Your task to perform on an android device: Add "alienware area 51" to the cart on bestbuy Image 0: 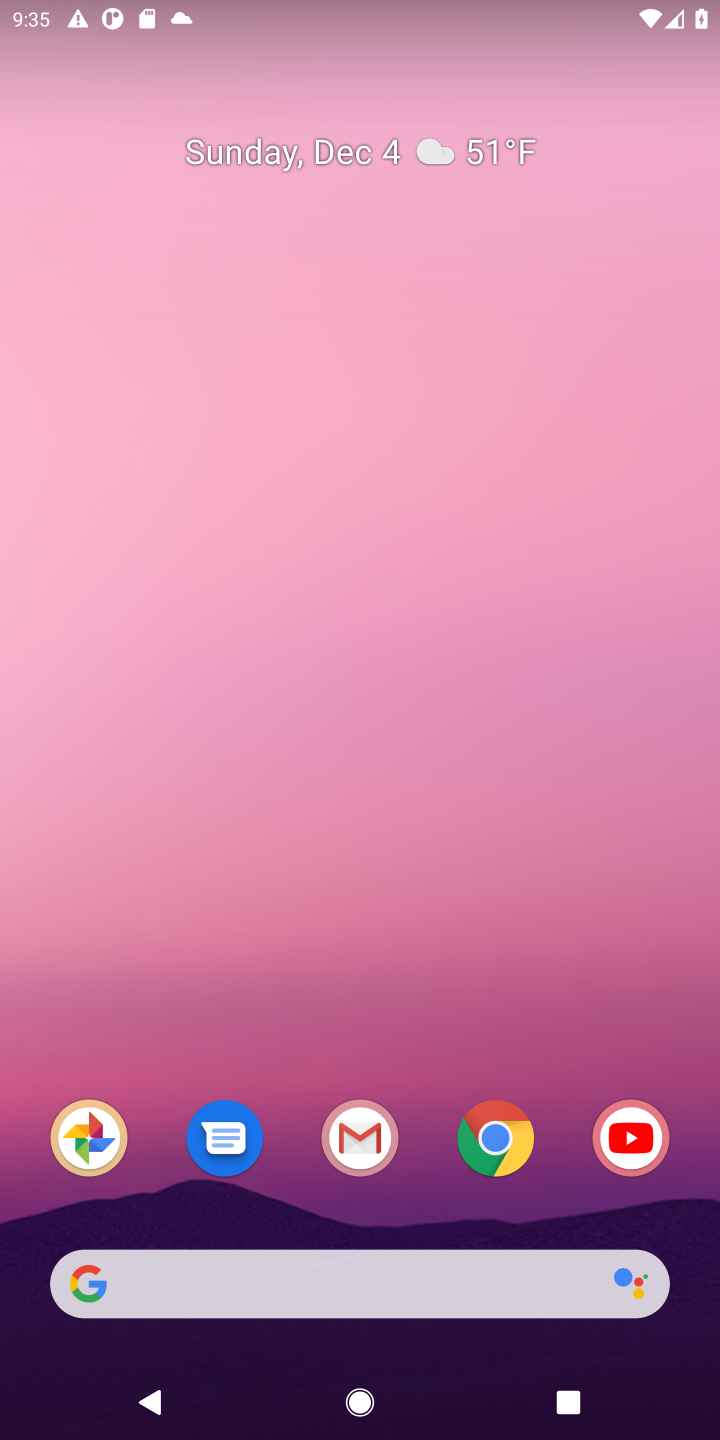
Step 0: click (505, 1131)
Your task to perform on an android device: Add "alienware area 51" to the cart on bestbuy Image 1: 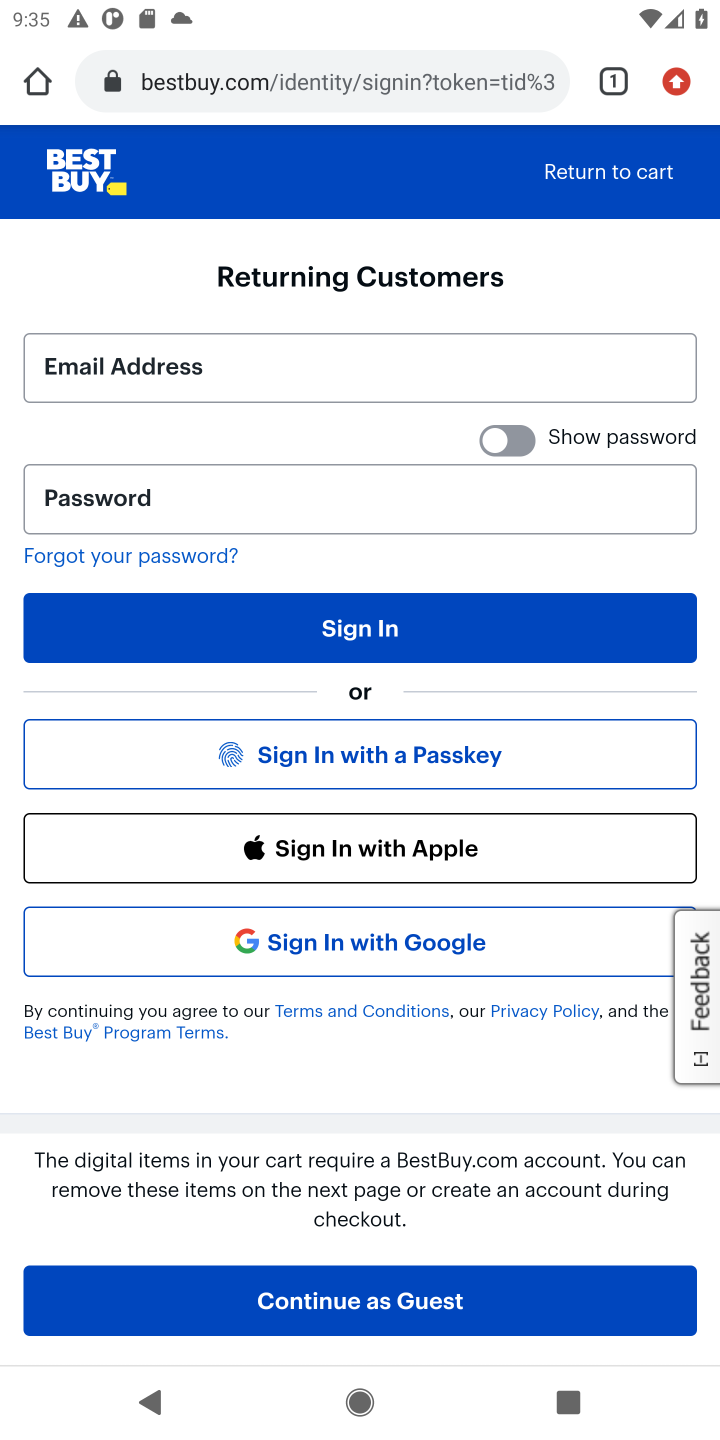
Step 1: press back button
Your task to perform on an android device: Add "alienware area 51" to the cart on bestbuy Image 2: 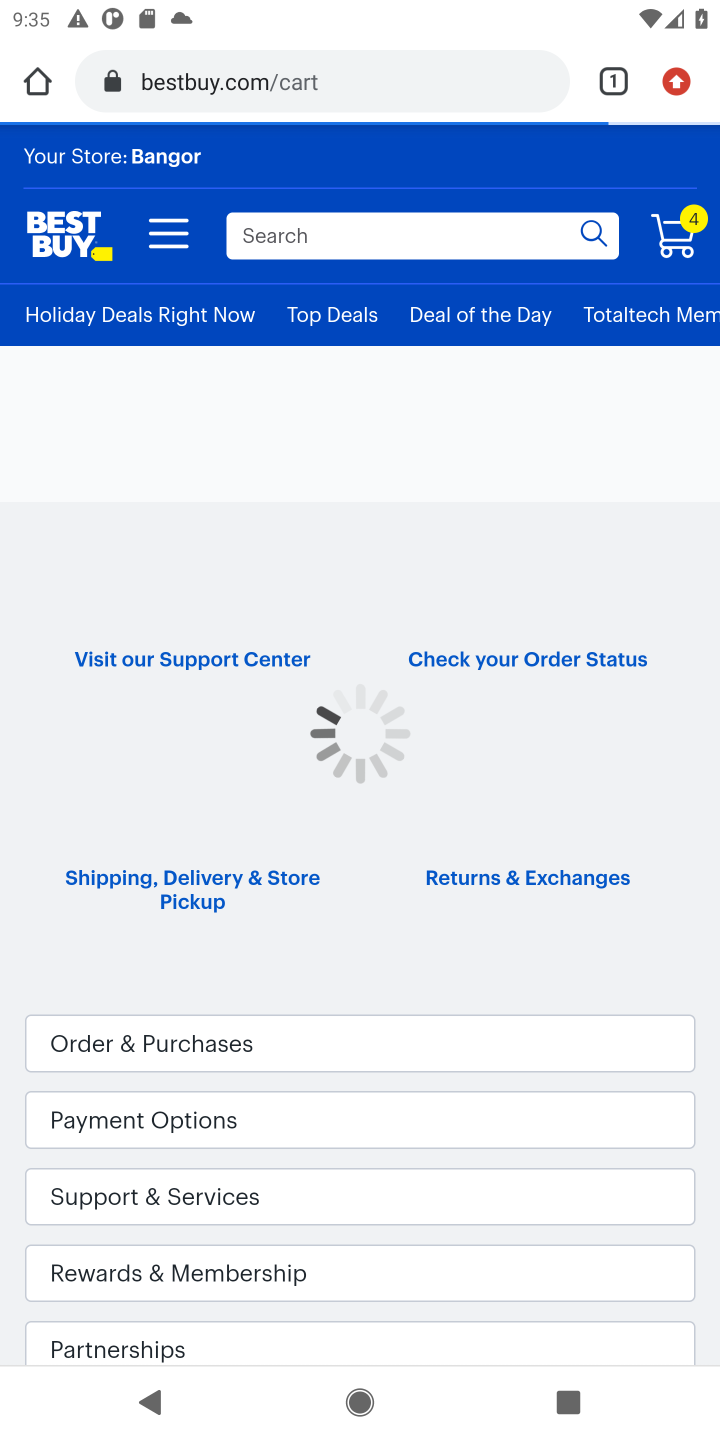
Step 2: click (402, 235)
Your task to perform on an android device: Add "alienware area 51" to the cart on bestbuy Image 3: 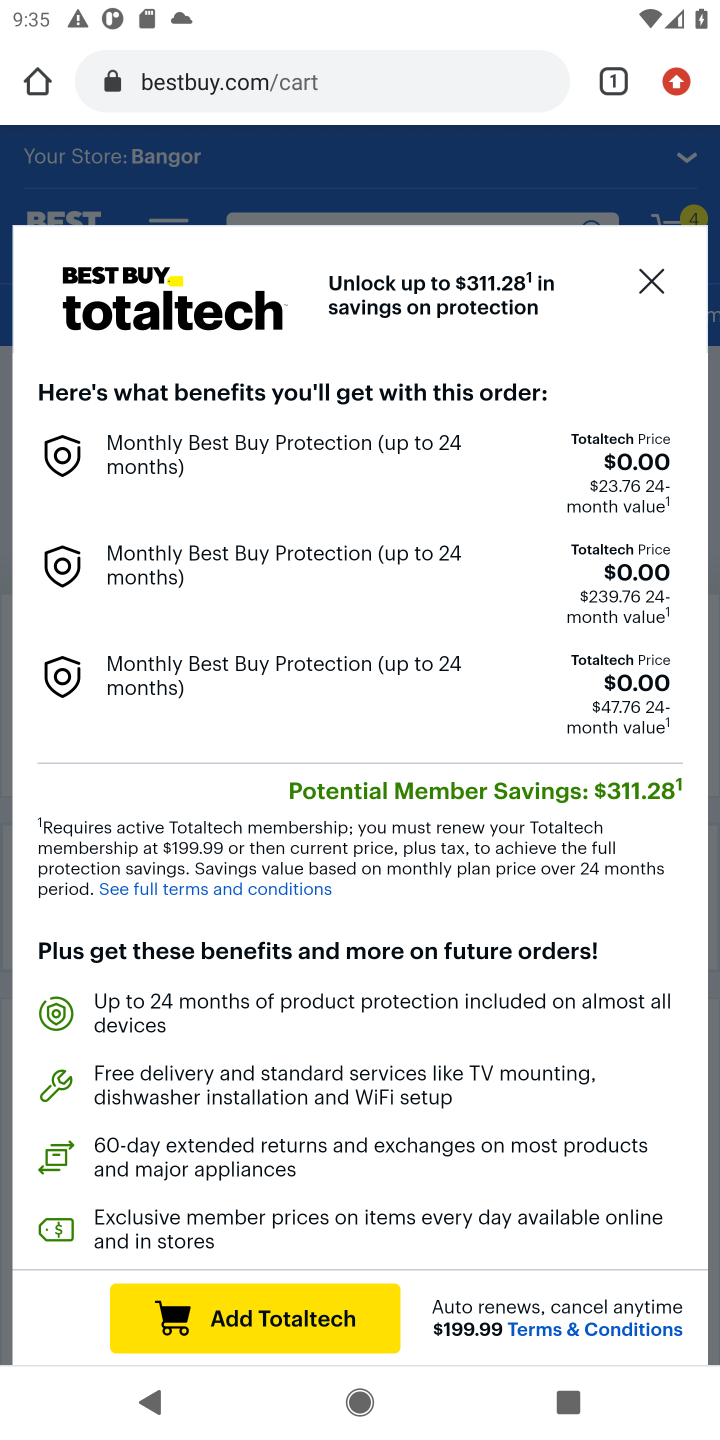
Step 3: type "alienware area 51"
Your task to perform on an android device: Add "alienware area 51" to the cart on bestbuy Image 4: 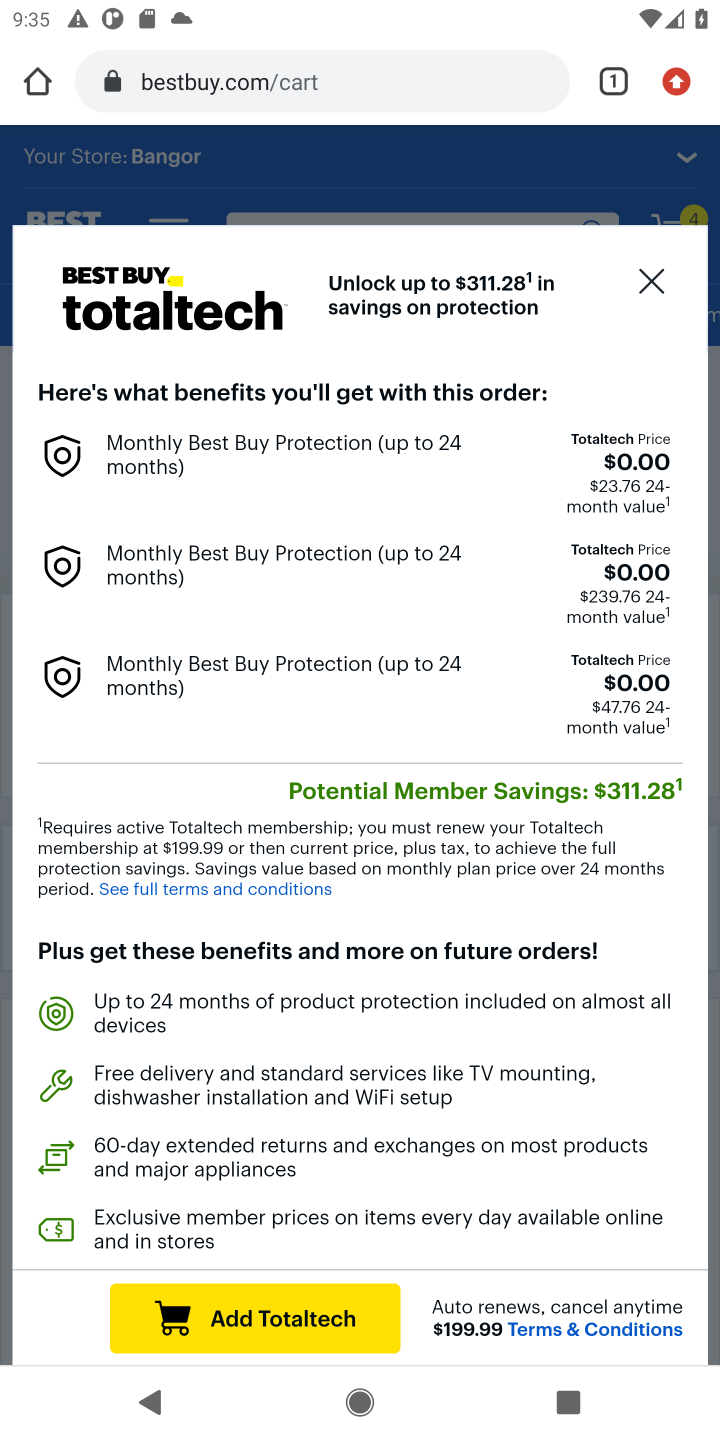
Step 4: click (644, 280)
Your task to perform on an android device: Add "alienware area 51" to the cart on bestbuy Image 5: 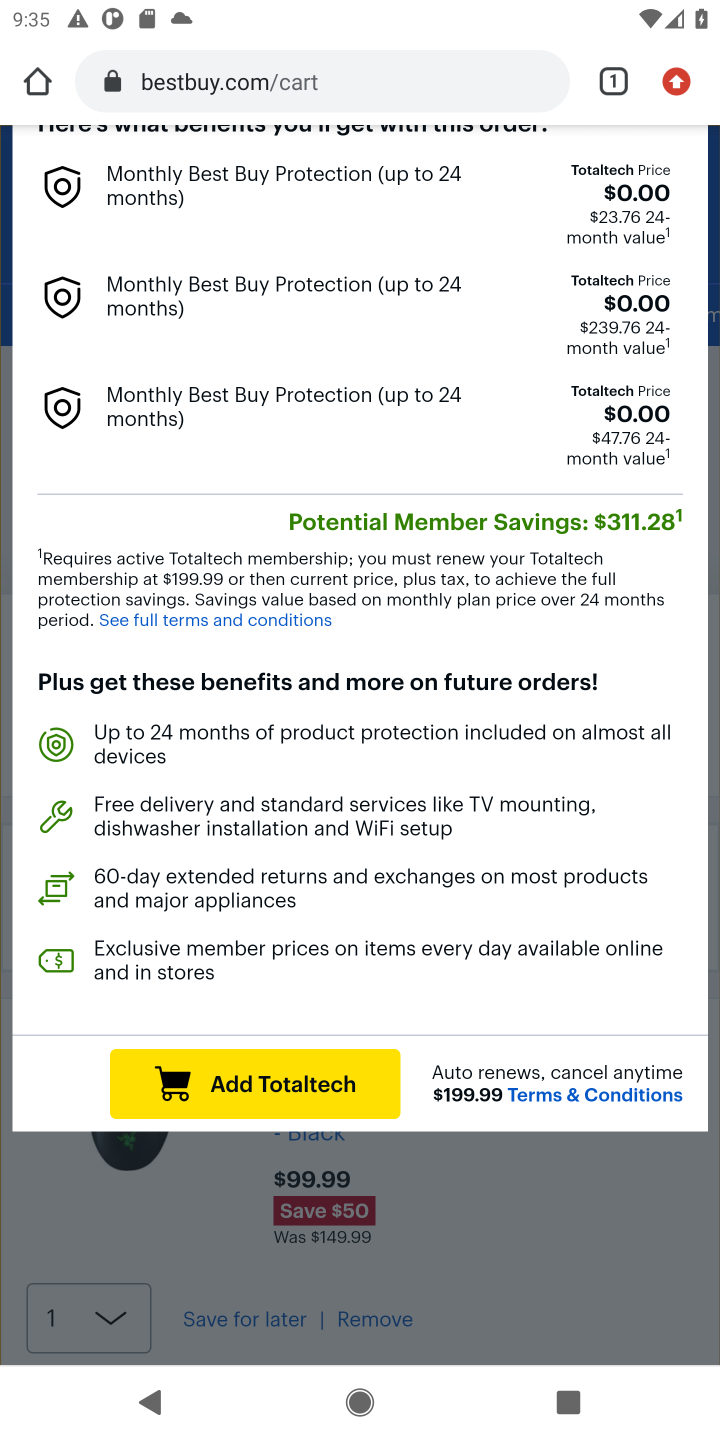
Step 5: drag from (499, 306) to (530, 1182)
Your task to perform on an android device: Add "alienware area 51" to the cart on bestbuy Image 6: 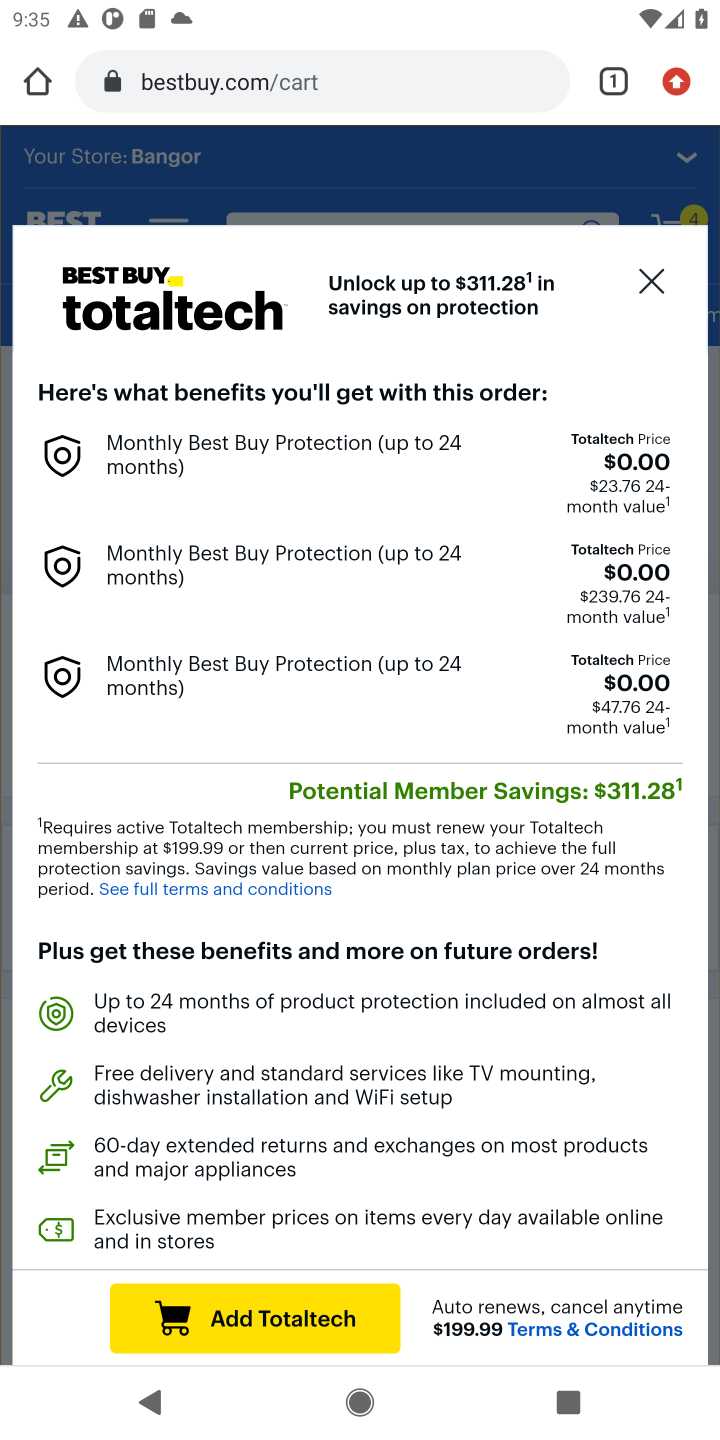
Step 6: click (650, 275)
Your task to perform on an android device: Add "alienware area 51" to the cart on bestbuy Image 7: 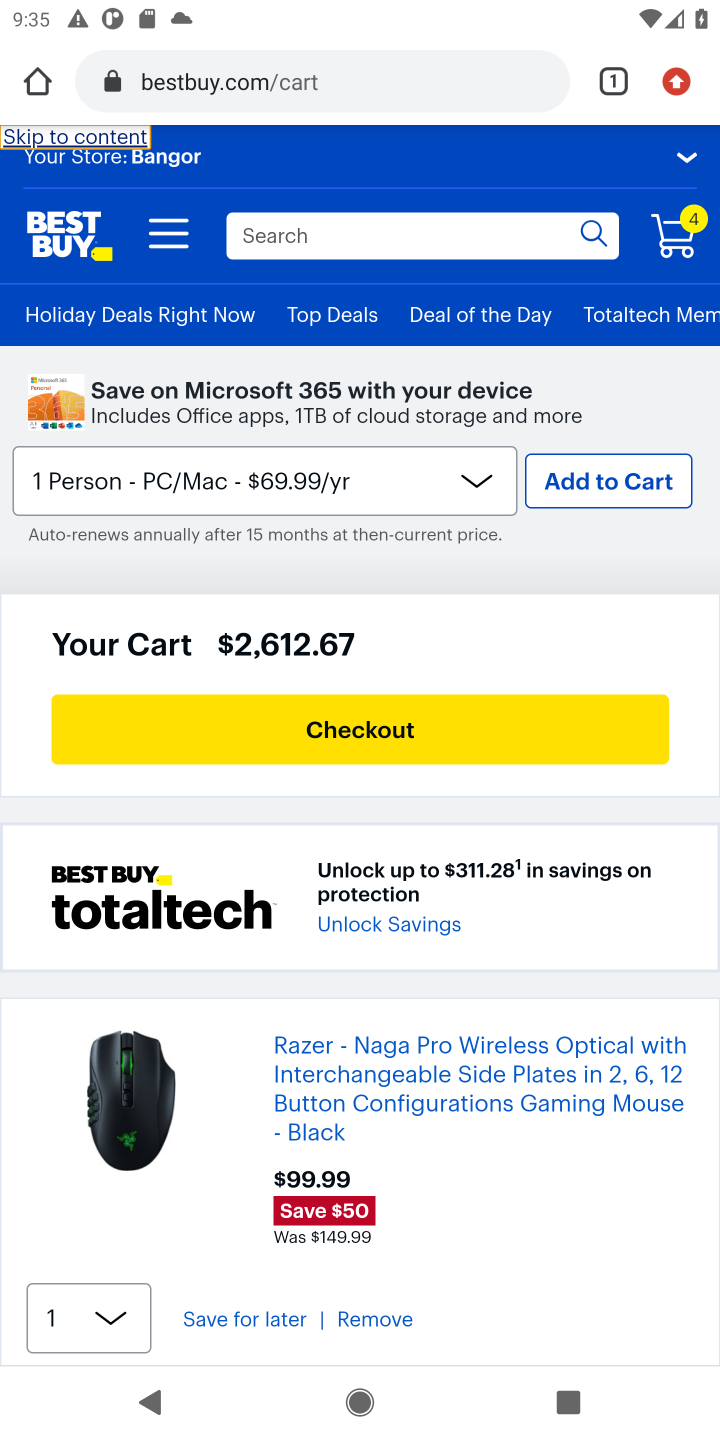
Step 7: click (521, 231)
Your task to perform on an android device: Add "alienware area 51" to the cart on bestbuy Image 8: 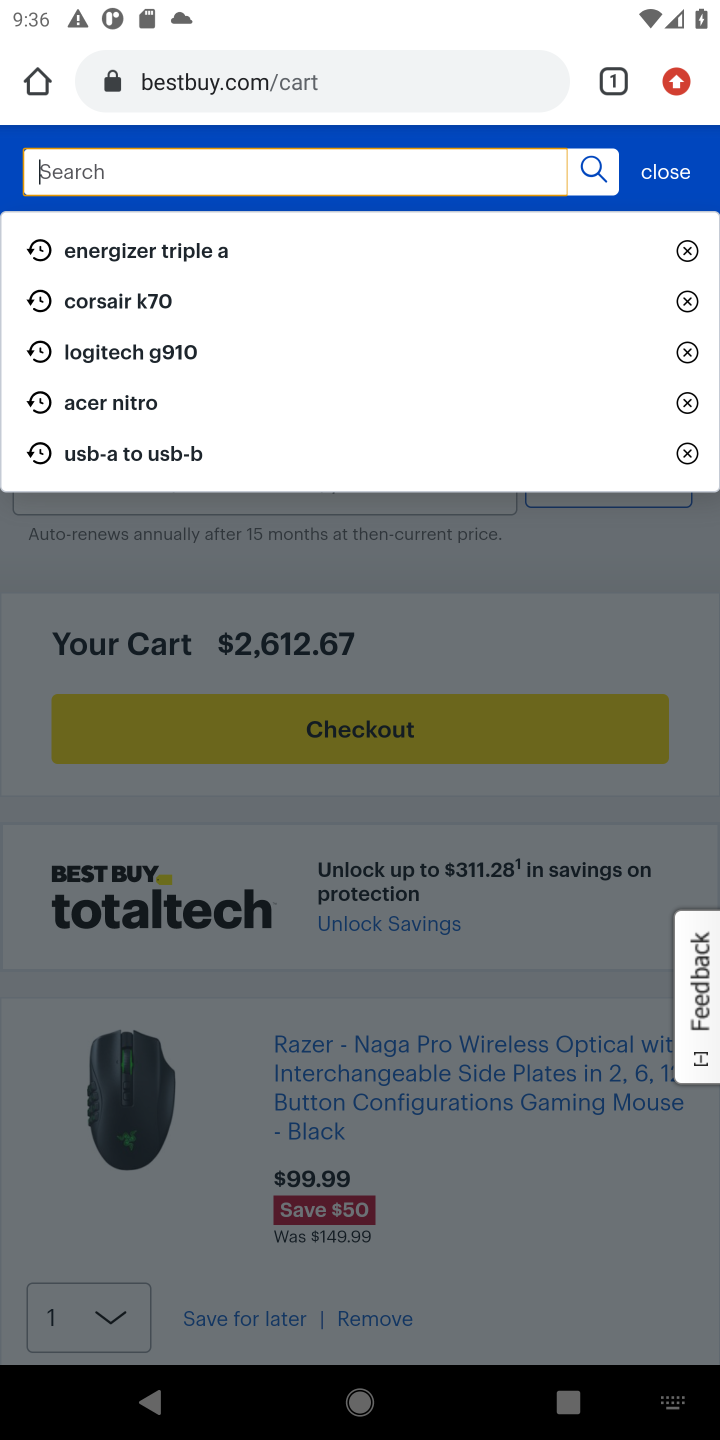
Step 8: type "alienware area 51"
Your task to perform on an android device: Add "alienware area 51" to the cart on bestbuy Image 9: 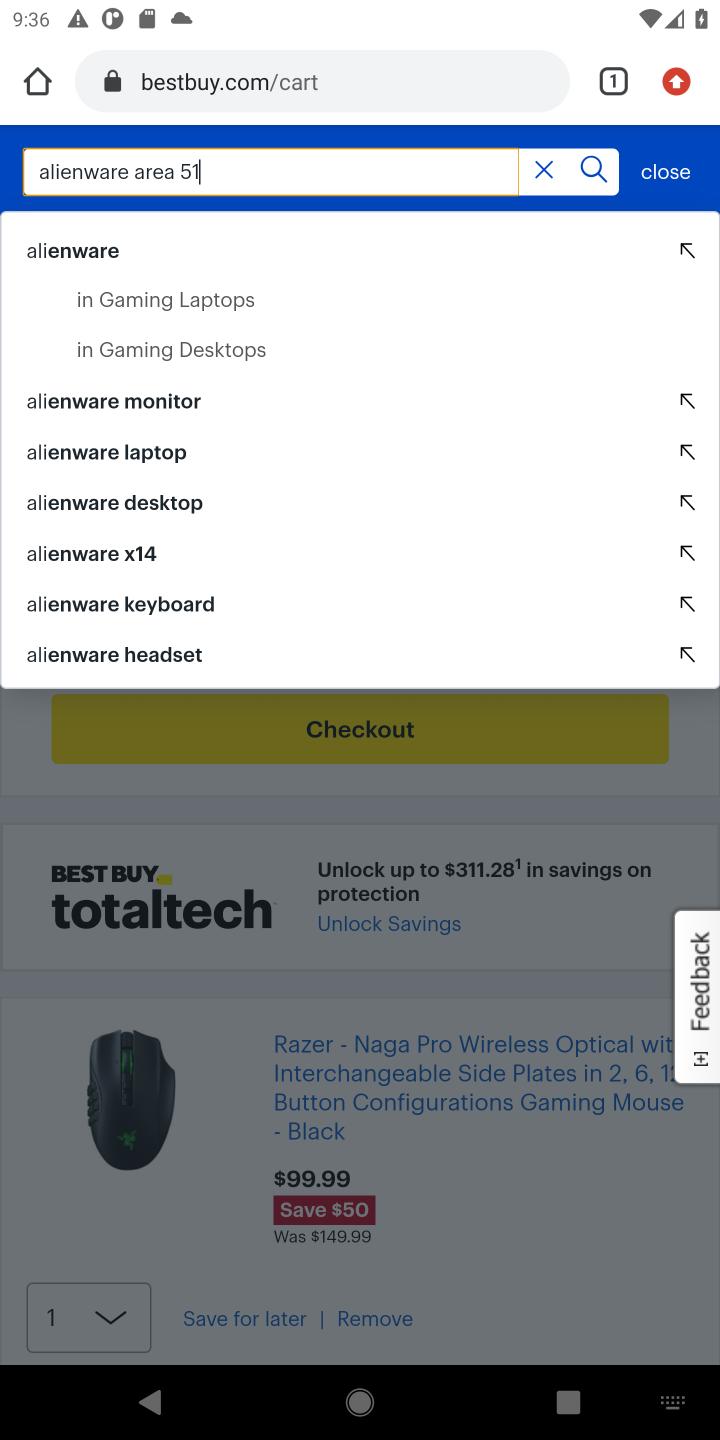
Step 9: press enter
Your task to perform on an android device: Add "alienware area 51" to the cart on bestbuy Image 10: 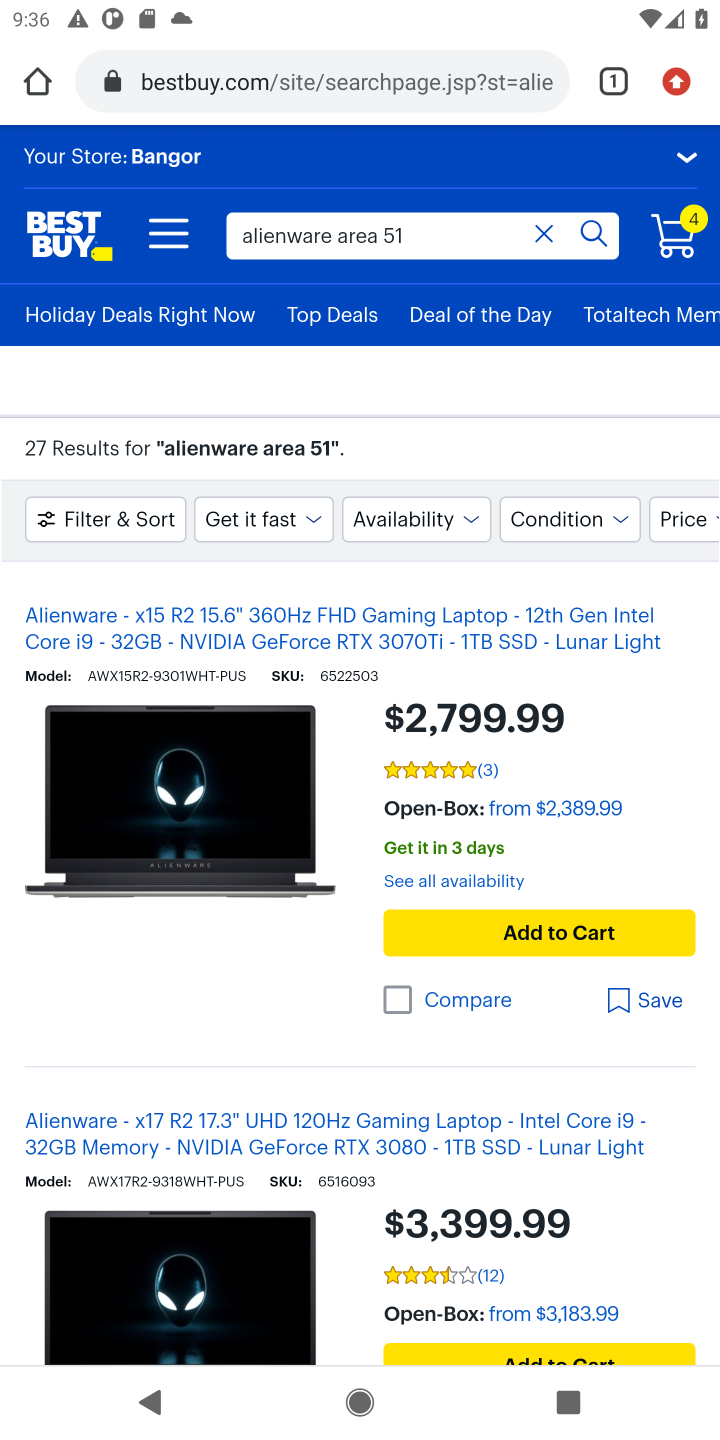
Step 10: drag from (404, 998) to (495, 388)
Your task to perform on an android device: Add "alienware area 51" to the cart on bestbuy Image 11: 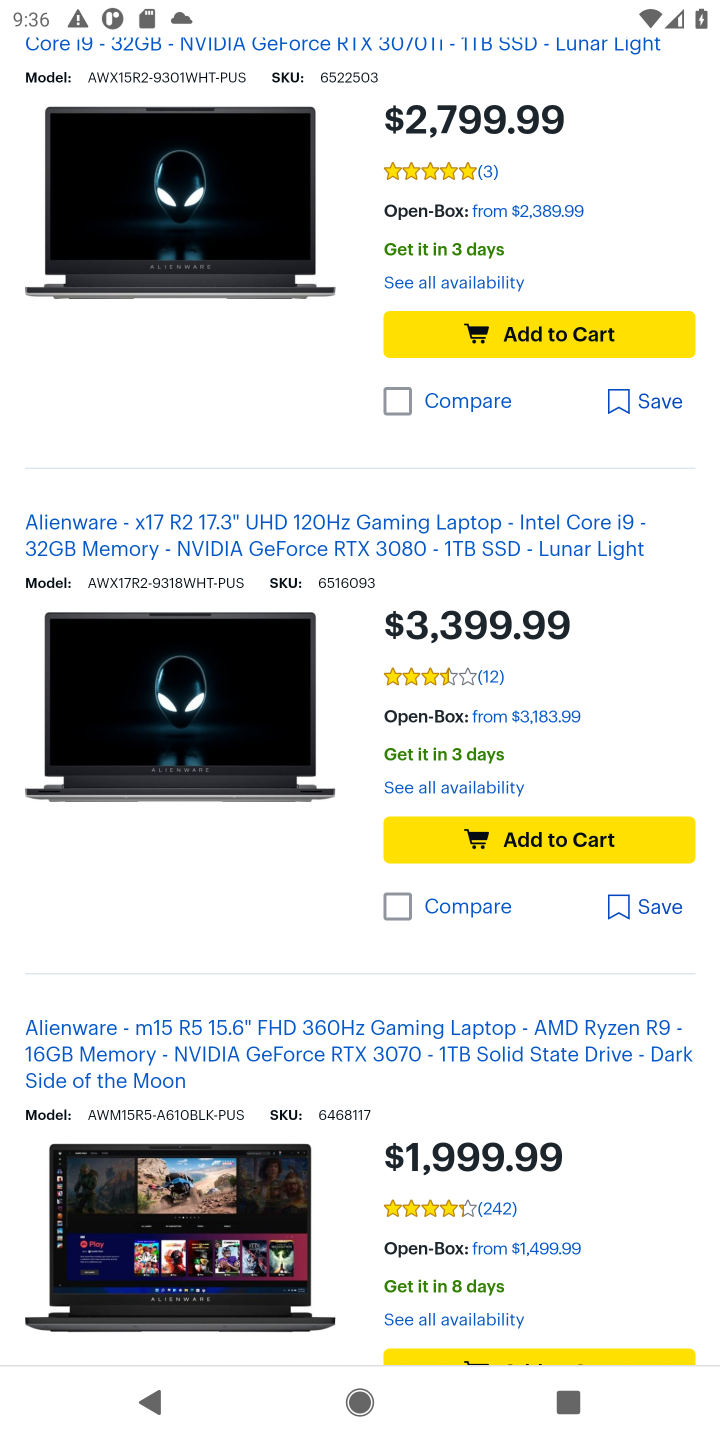
Step 11: drag from (562, 1087) to (607, 210)
Your task to perform on an android device: Add "alienware area 51" to the cart on bestbuy Image 12: 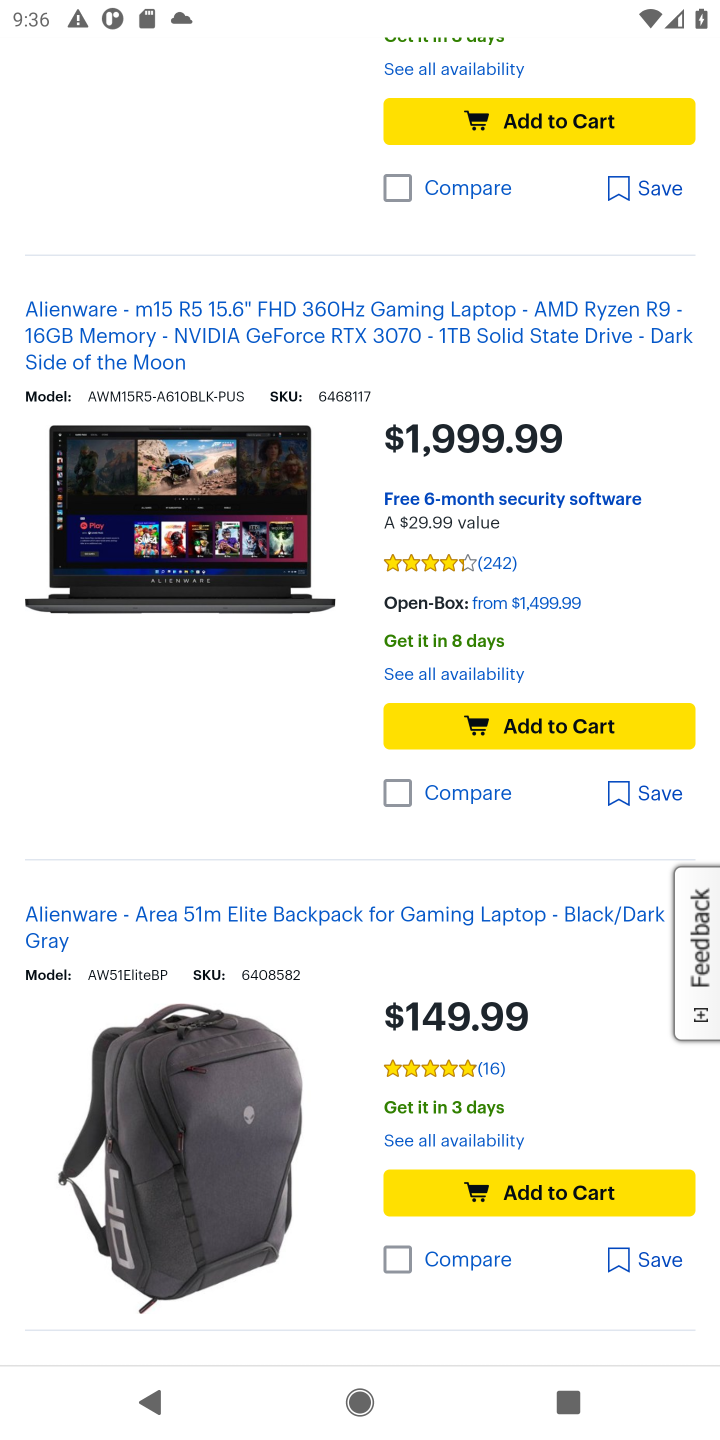
Step 12: click (212, 1042)
Your task to perform on an android device: Add "alienware area 51" to the cart on bestbuy Image 13: 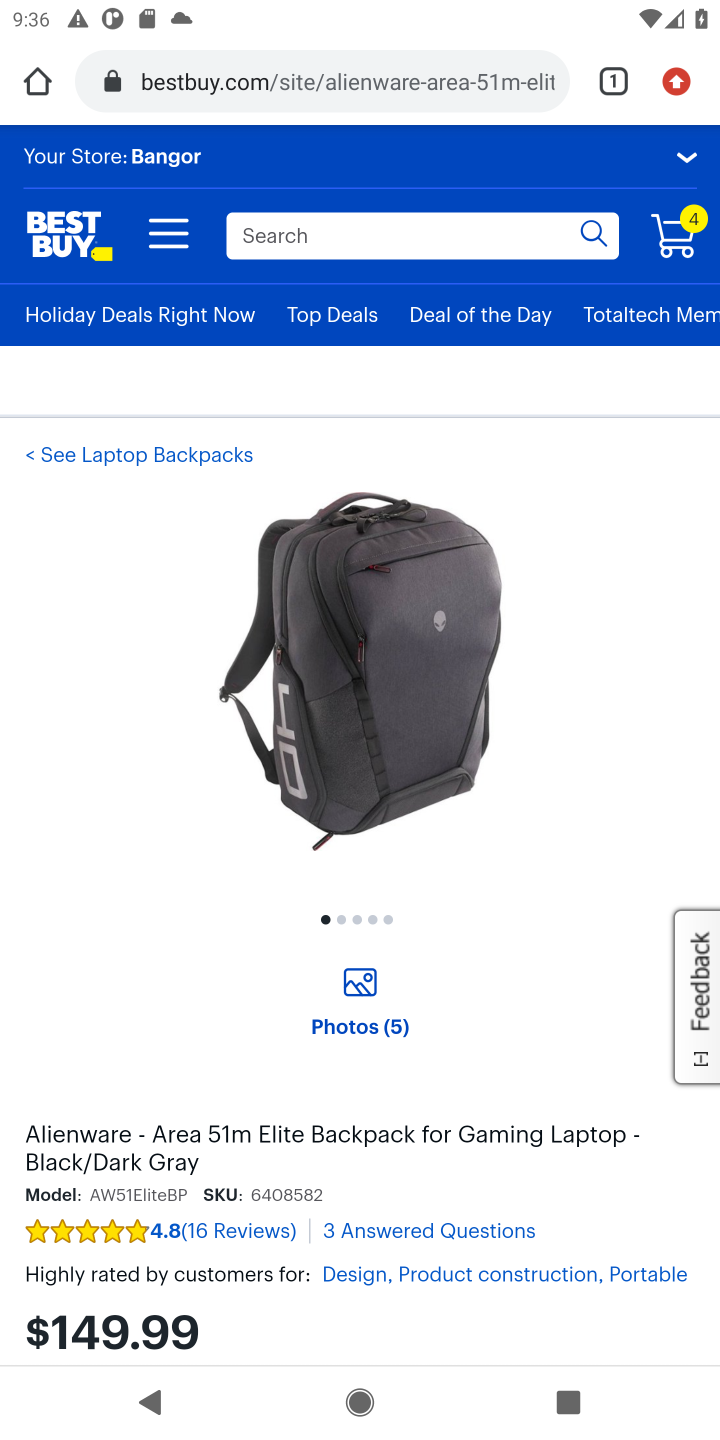
Step 13: drag from (556, 1068) to (467, 392)
Your task to perform on an android device: Add "alienware area 51" to the cart on bestbuy Image 14: 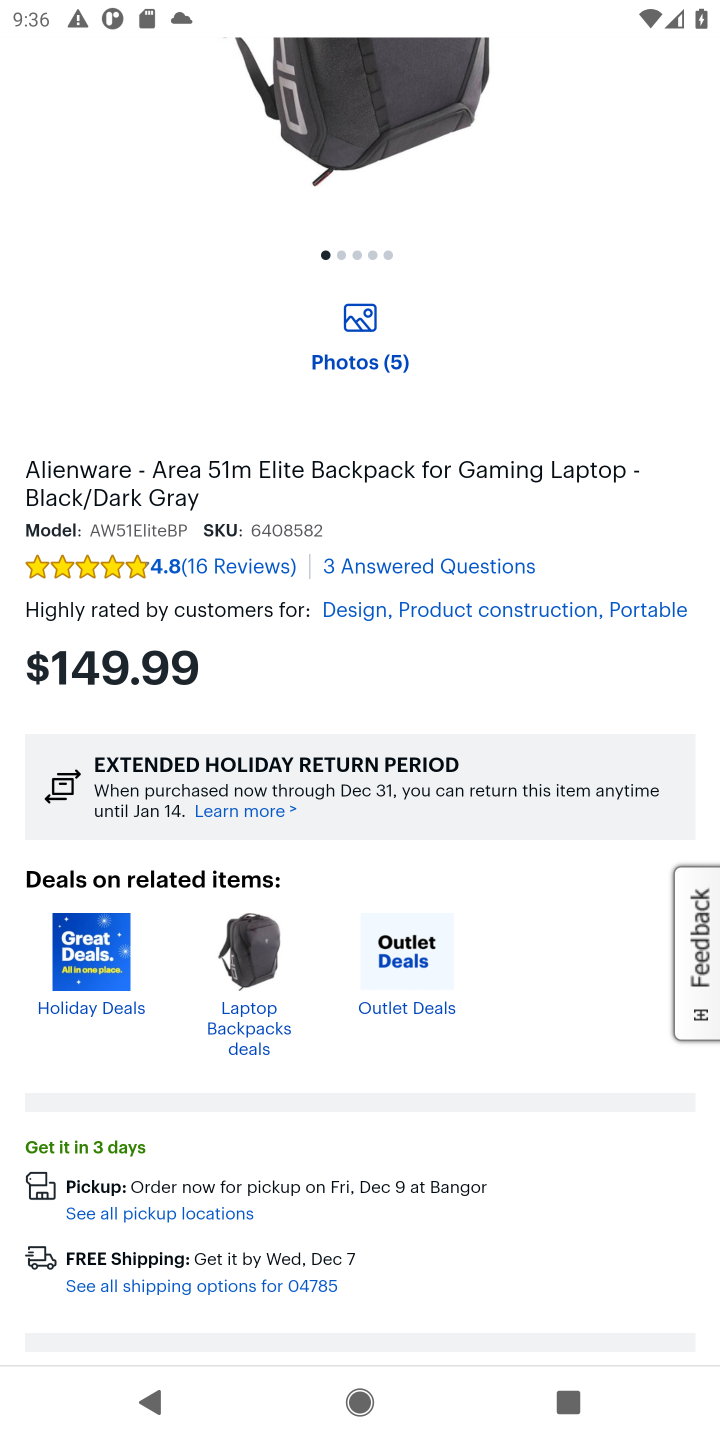
Step 14: drag from (635, 1200) to (421, 312)
Your task to perform on an android device: Add "alienware area 51" to the cart on bestbuy Image 15: 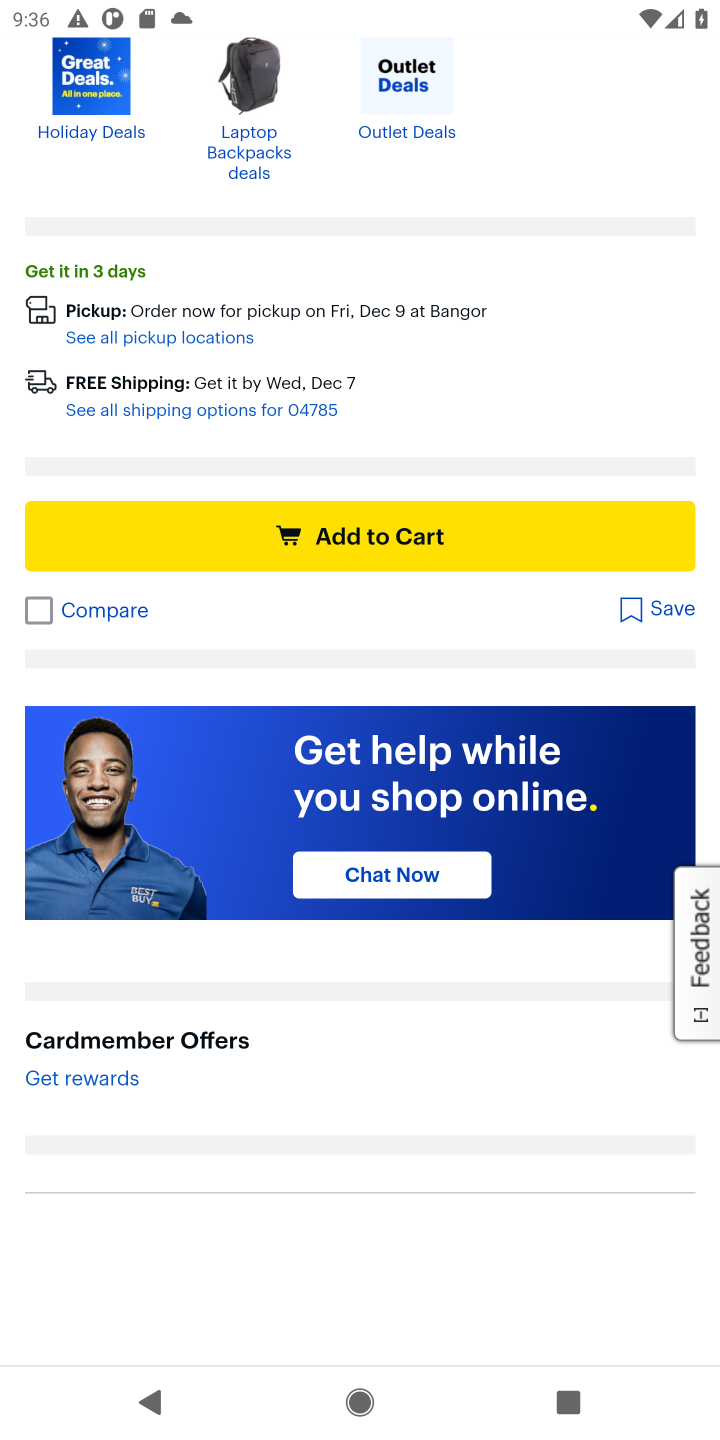
Step 15: click (385, 538)
Your task to perform on an android device: Add "alienware area 51" to the cart on bestbuy Image 16: 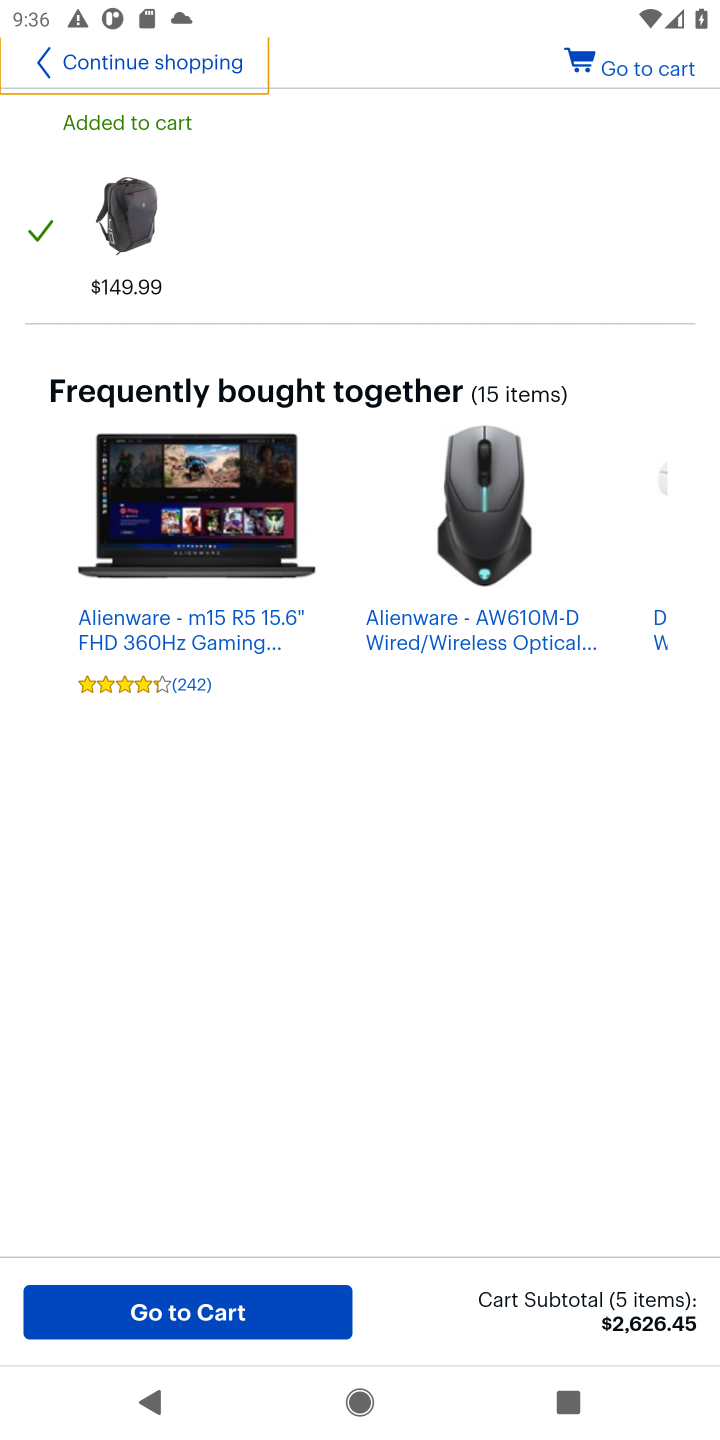
Step 16: task complete